Your task to perform on an android device: Go to sound settings Image 0: 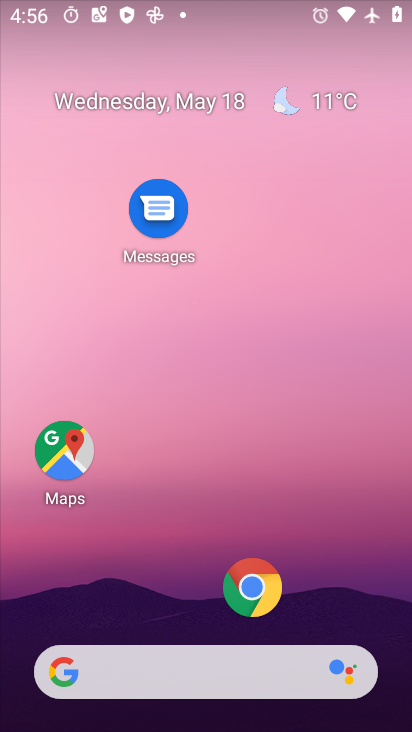
Step 0: drag from (177, 619) to (211, 245)
Your task to perform on an android device: Go to sound settings Image 1: 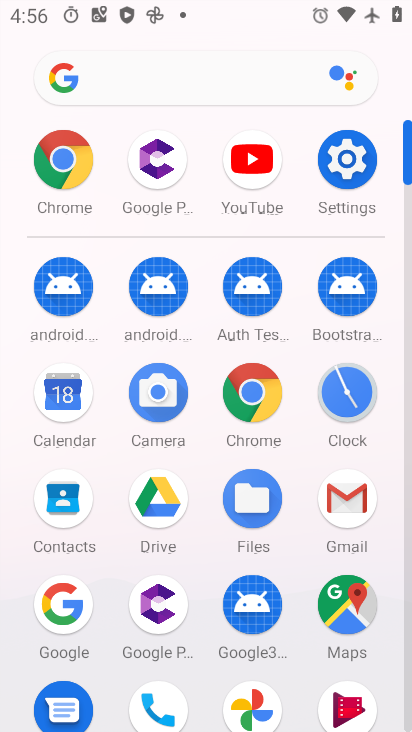
Step 1: click (368, 168)
Your task to perform on an android device: Go to sound settings Image 2: 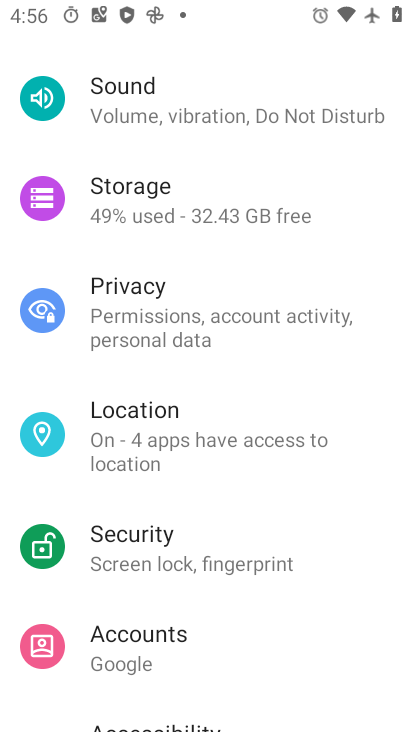
Step 2: drag from (212, 275) to (208, 423)
Your task to perform on an android device: Go to sound settings Image 3: 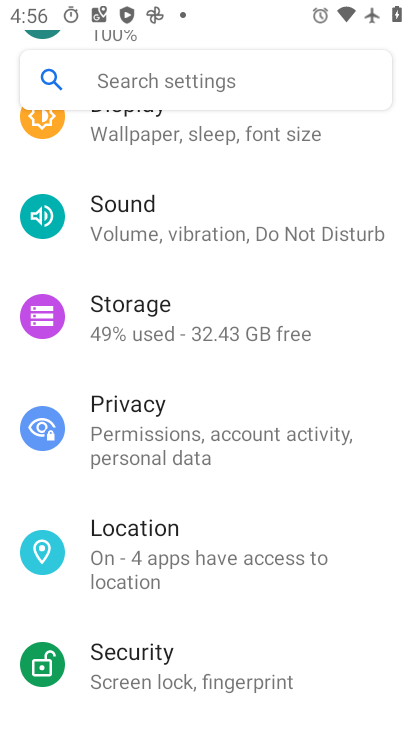
Step 3: click (212, 240)
Your task to perform on an android device: Go to sound settings Image 4: 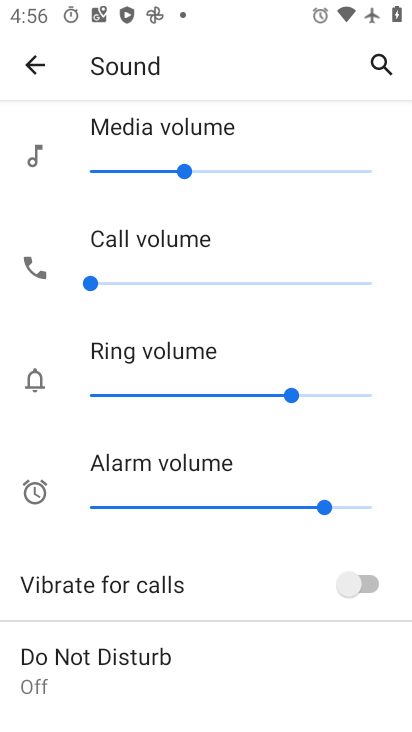
Step 4: task complete